Your task to perform on an android device: open app "Messages" (install if not already installed) Image 0: 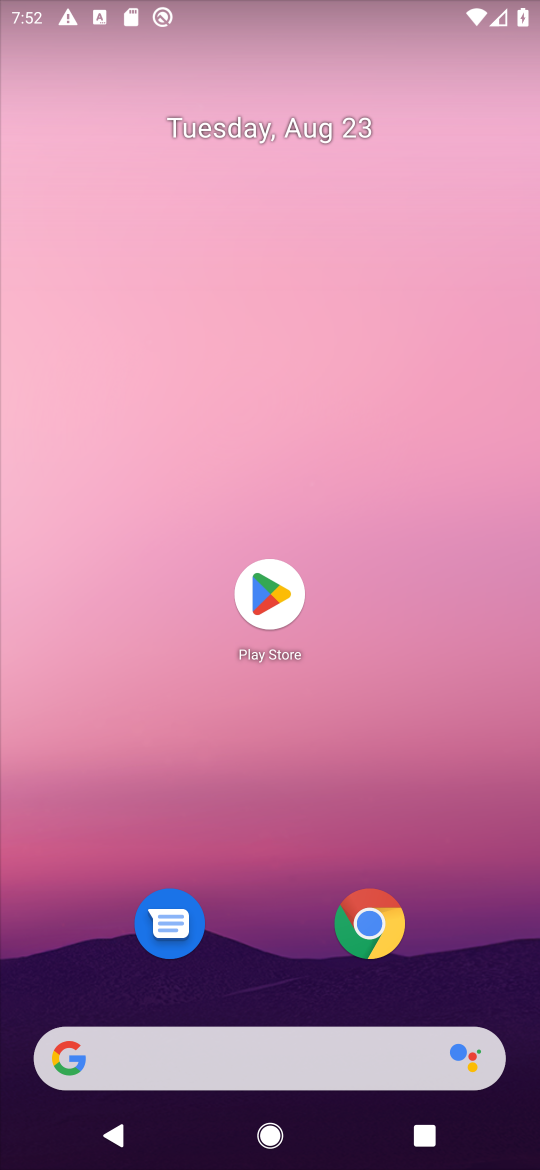
Step 0: click (260, 600)
Your task to perform on an android device: open app "Messages" (install if not already installed) Image 1: 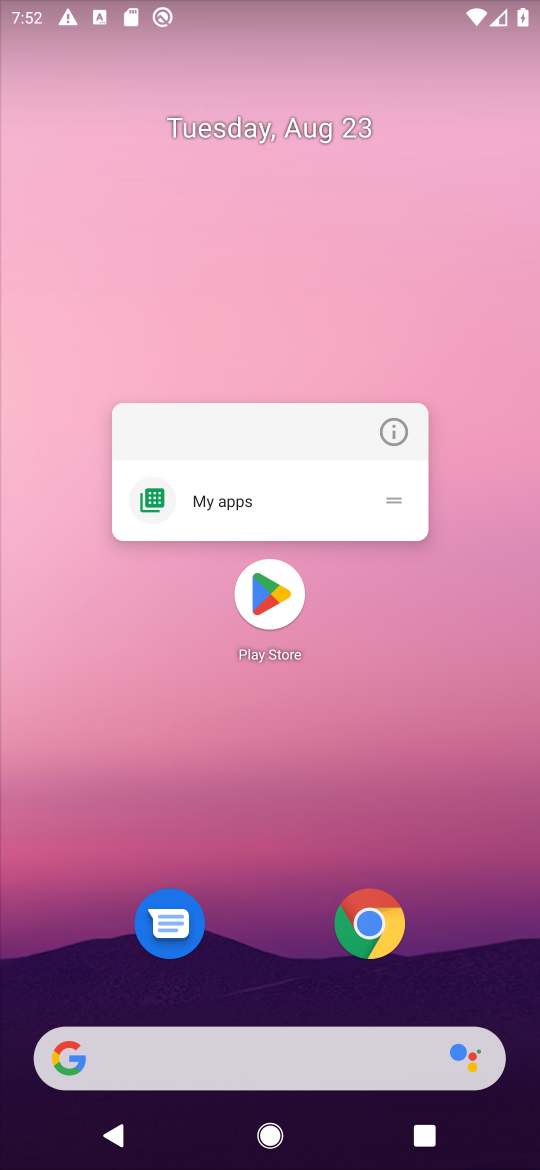
Step 1: click (266, 592)
Your task to perform on an android device: open app "Messages" (install if not already installed) Image 2: 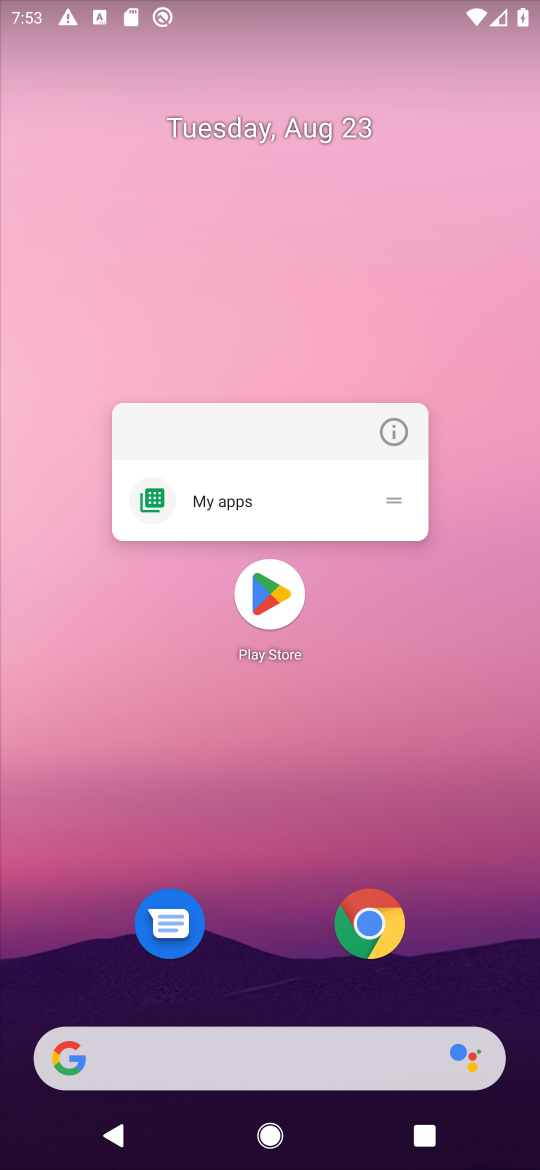
Step 2: click (262, 601)
Your task to perform on an android device: open app "Messages" (install if not already installed) Image 3: 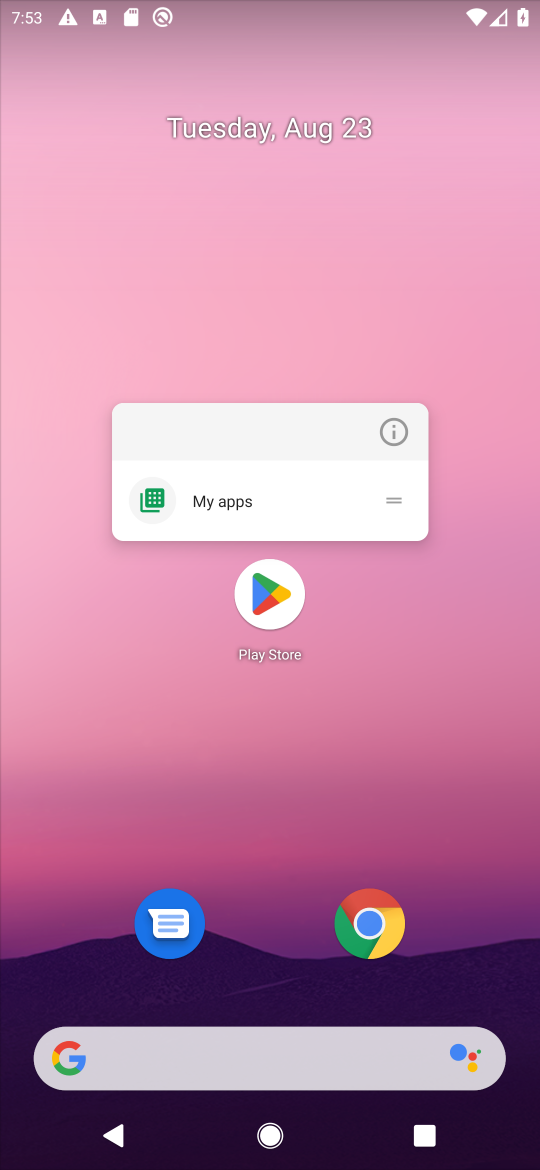
Step 3: click (267, 598)
Your task to perform on an android device: open app "Messages" (install if not already installed) Image 4: 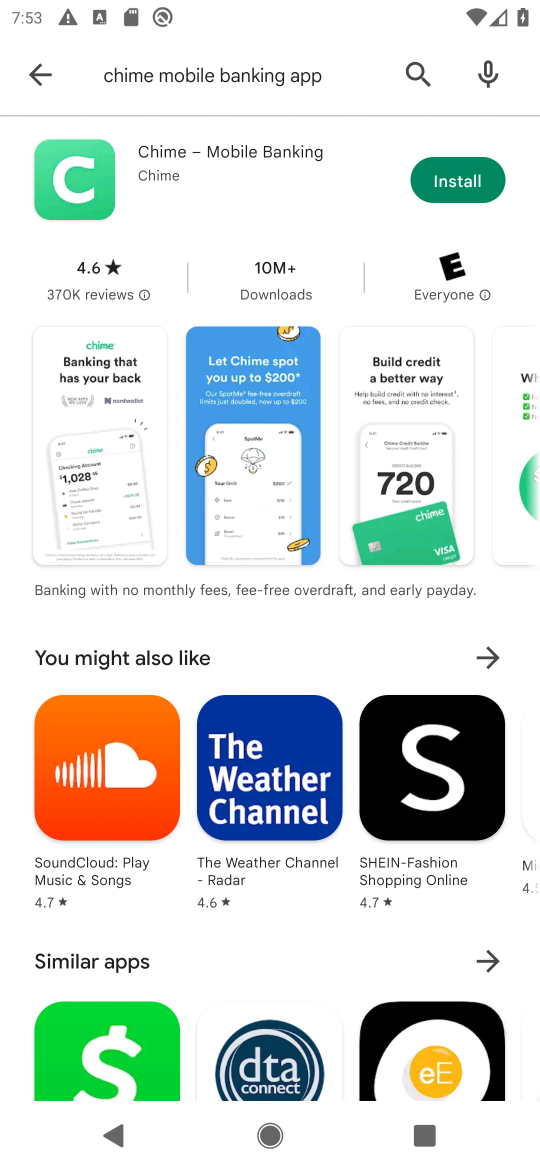
Step 4: click (412, 64)
Your task to perform on an android device: open app "Messages" (install if not already installed) Image 5: 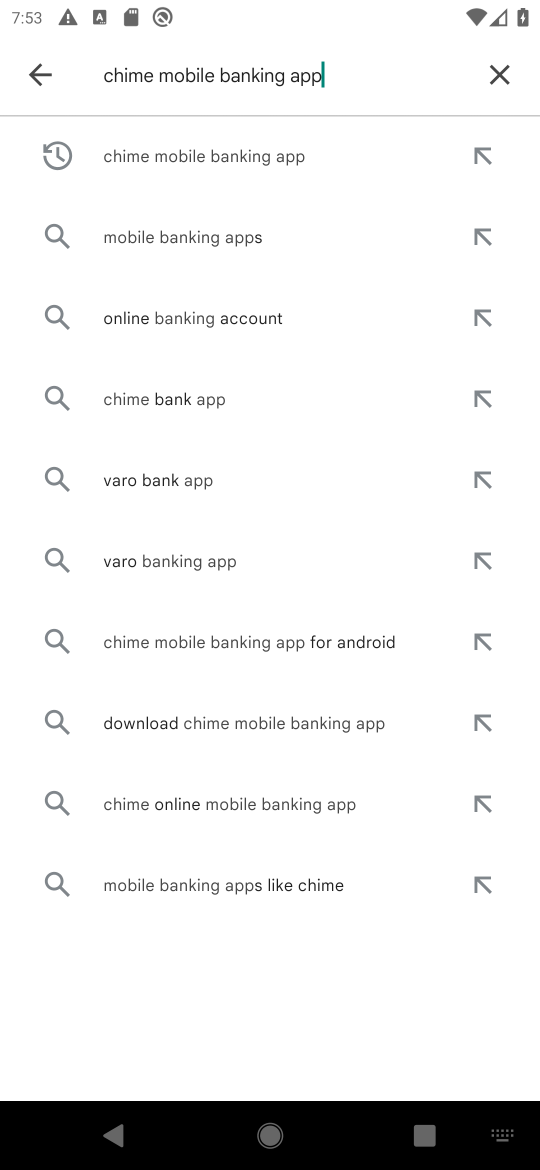
Step 5: click (491, 71)
Your task to perform on an android device: open app "Messages" (install if not already installed) Image 6: 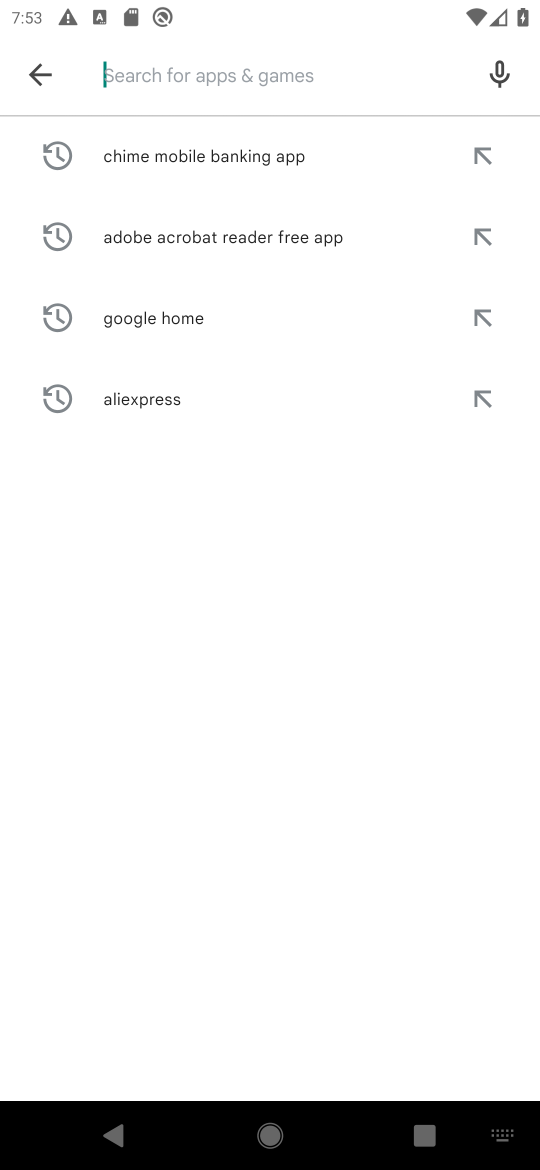
Step 6: type "Messages"
Your task to perform on an android device: open app "Messages" (install if not already installed) Image 7: 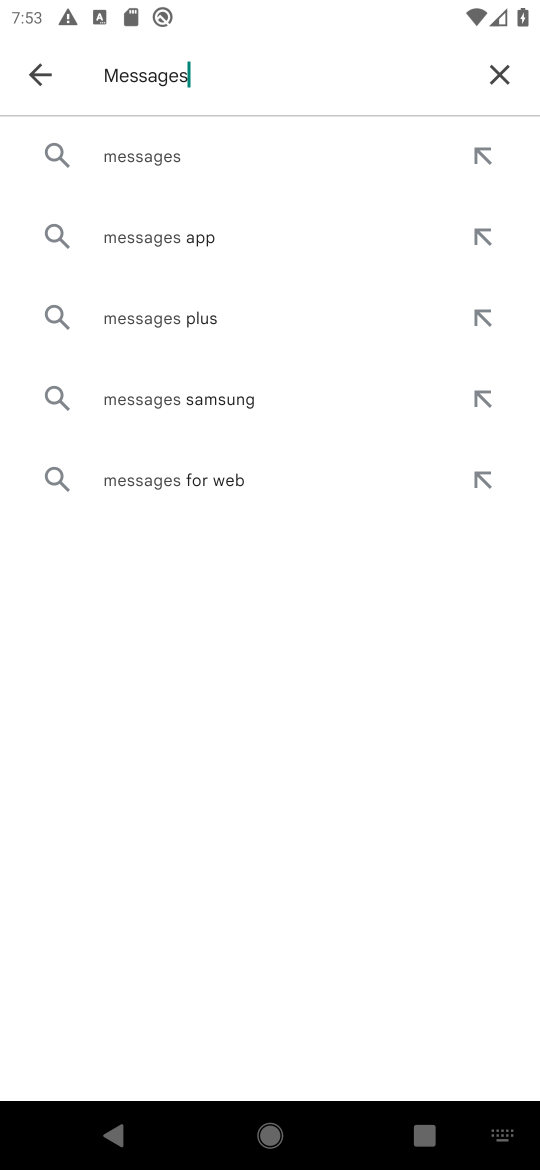
Step 7: click (154, 150)
Your task to perform on an android device: open app "Messages" (install if not already installed) Image 8: 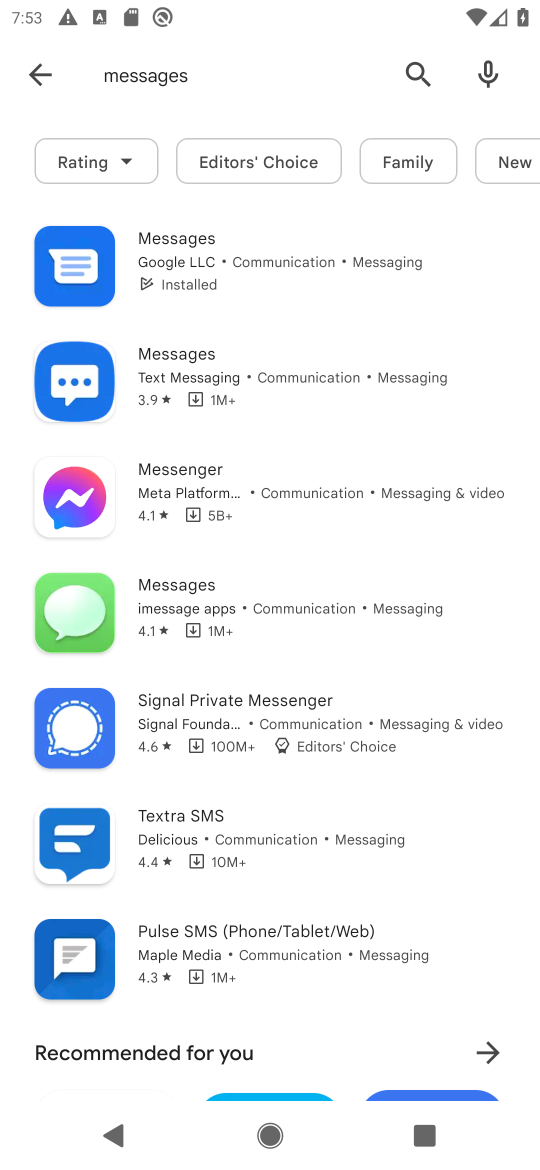
Step 8: click (188, 283)
Your task to perform on an android device: open app "Messages" (install if not already installed) Image 9: 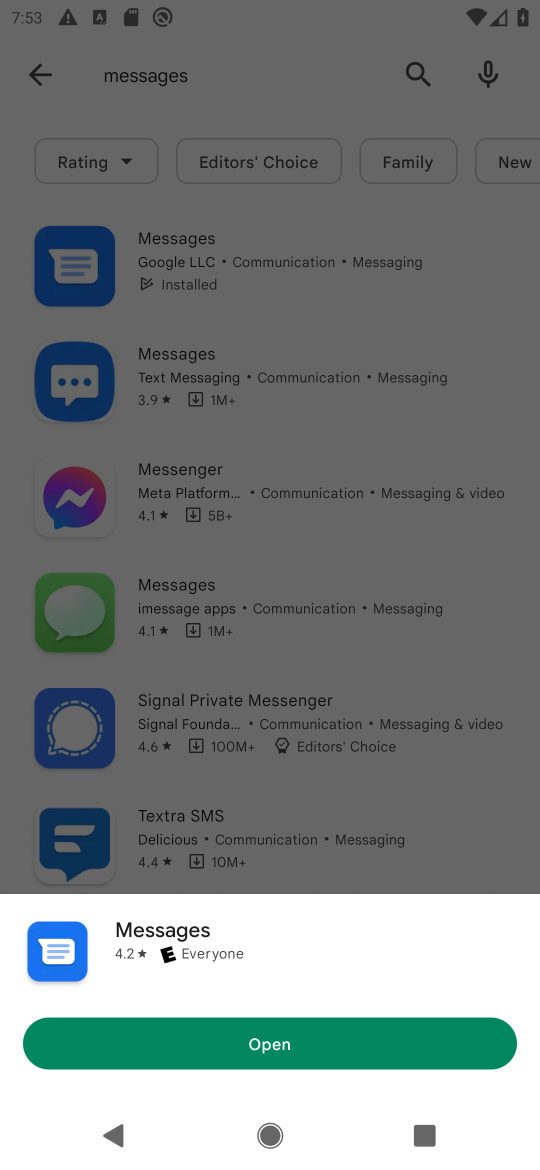
Step 9: click (280, 1058)
Your task to perform on an android device: open app "Messages" (install if not already installed) Image 10: 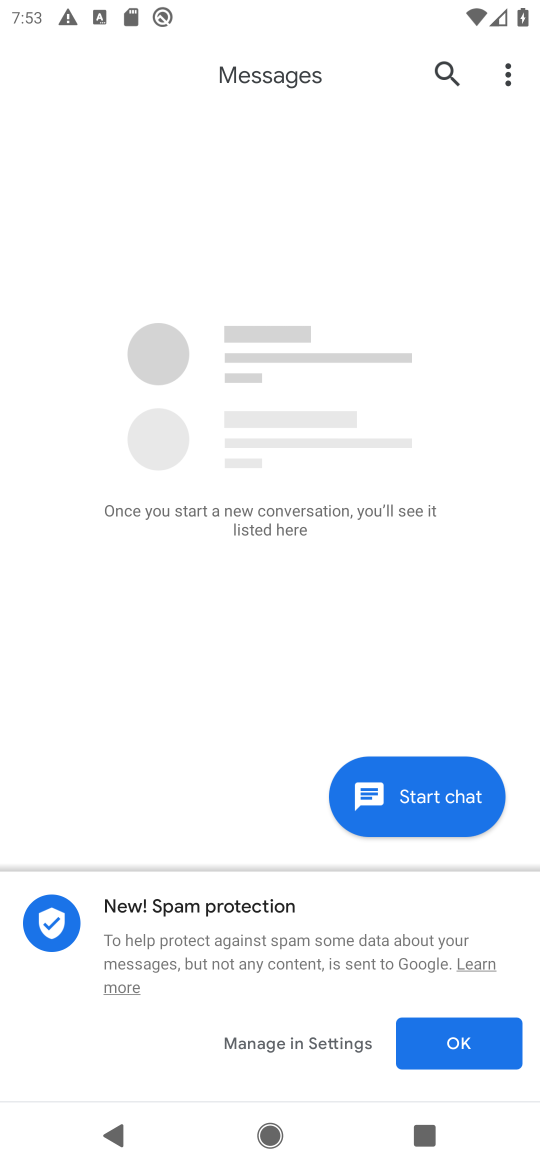
Step 10: task complete